Your task to perform on an android device: turn off airplane mode Image 0: 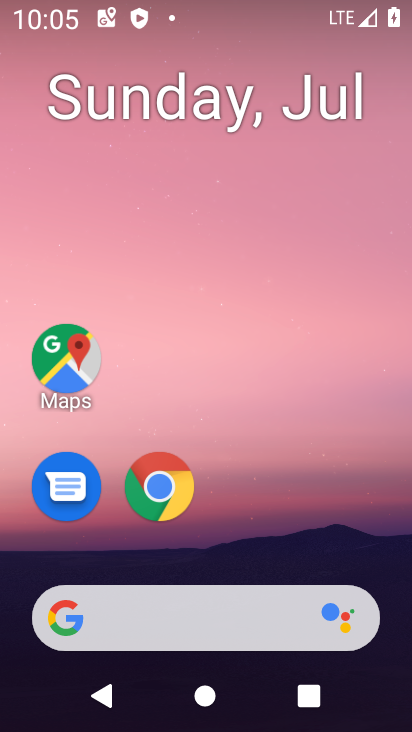
Step 0: press home button
Your task to perform on an android device: turn off airplane mode Image 1: 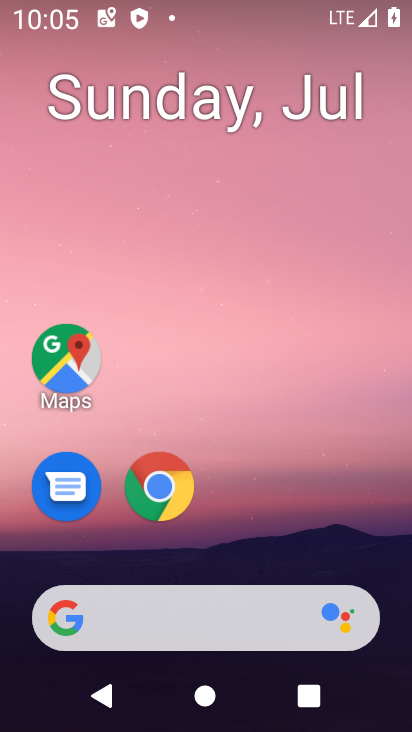
Step 1: drag from (373, 508) to (382, 99)
Your task to perform on an android device: turn off airplane mode Image 2: 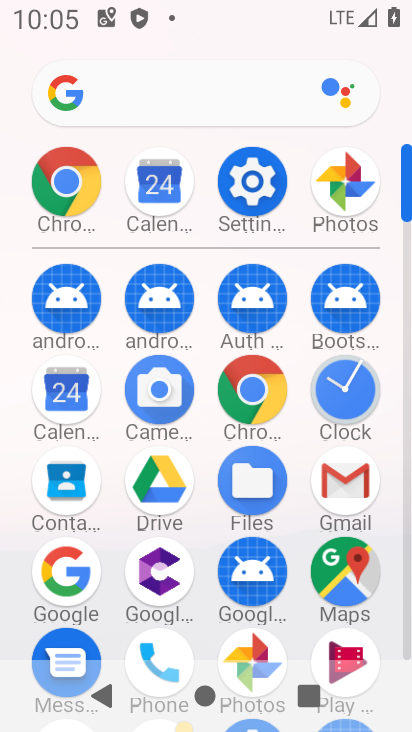
Step 2: click (259, 191)
Your task to perform on an android device: turn off airplane mode Image 3: 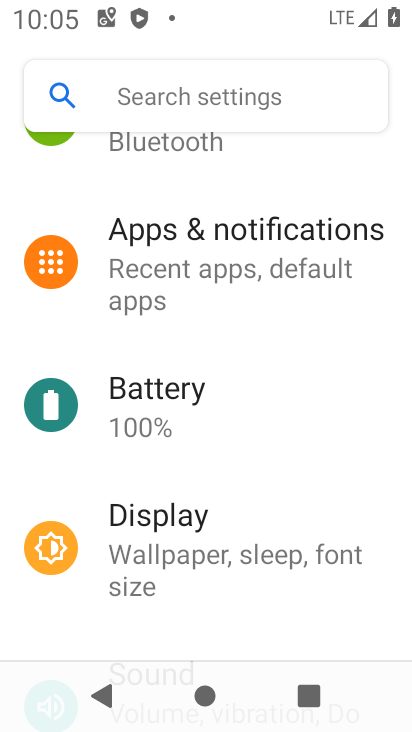
Step 3: drag from (383, 286) to (381, 409)
Your task to perform on an android device: turn off airplane mode Image 4: 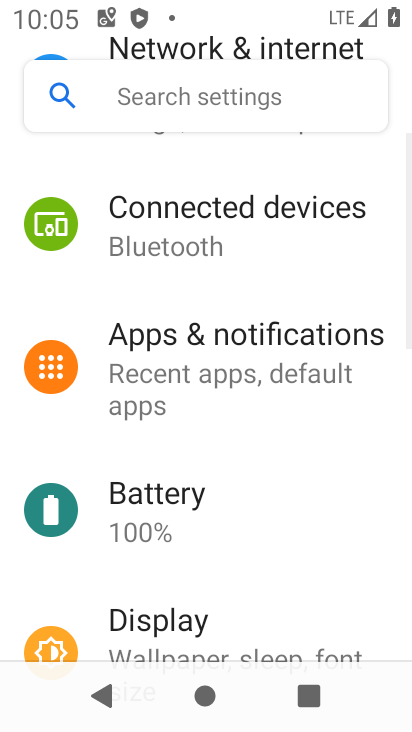
Step 4: drag from (372, 255) to (376, 409)
Your task to perform on an android device: turn off airplane mode Image 5: 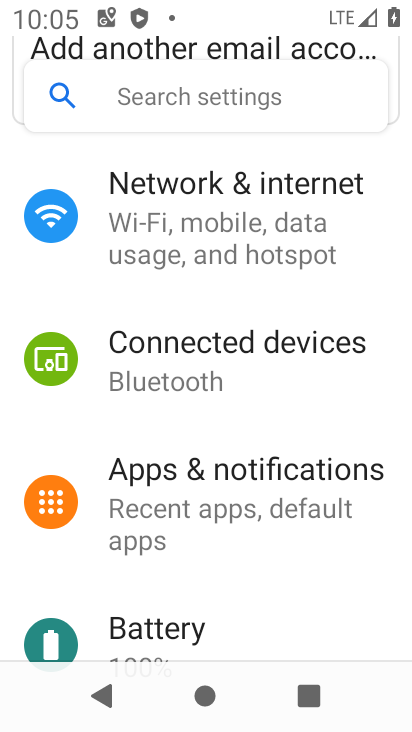
Step 5: drag from (387, 234) to (367, 347)
Your task to perform on an android device: turn off airplane mode Image 6: 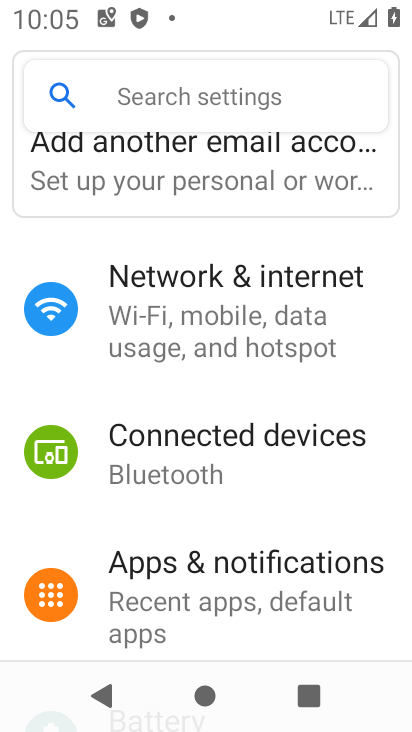
Step 6: drag from (382, 250) to (373, 445)
Your task to perform on an android device: turn off airplane mode Image 7: 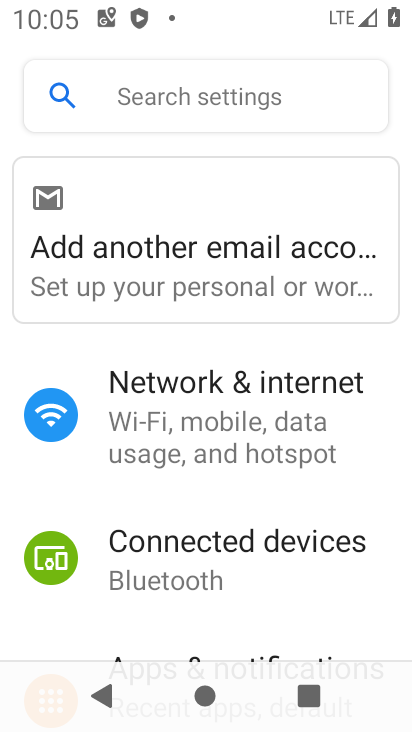
Step 7: click (320, 422)
Your task to perform on an android device: turn off airplane mode Image 8: 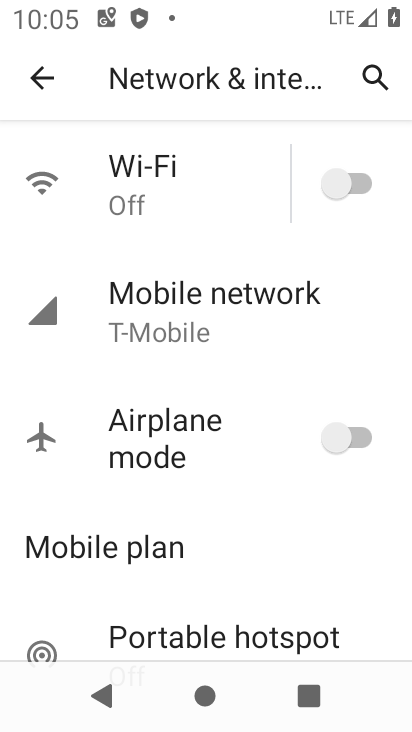
Step 8: task complete